Your task to perform on an android device: show emergency info Image 0: 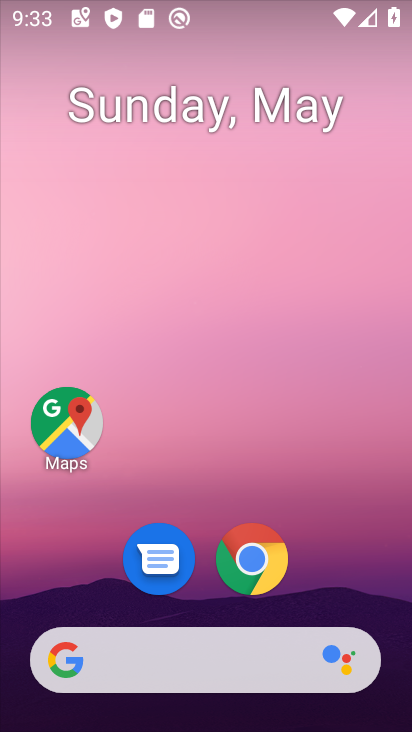
Step 0: press home button
Your task to perform on an android device: show emergency info Image 1: 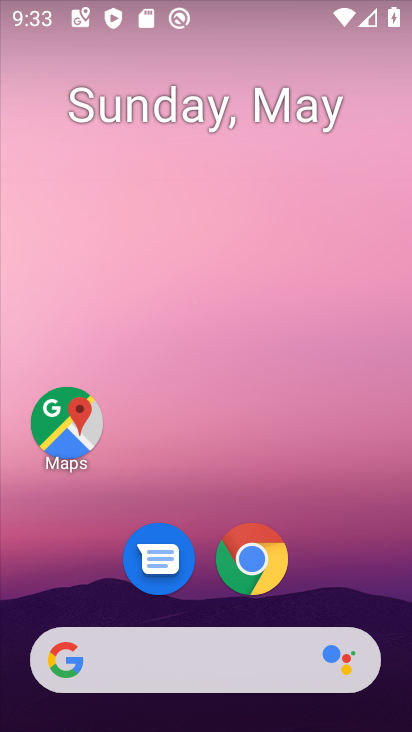
Step 1: drag from (347, 609) to (338, 85)
Your task to perform on an android device: show emergency info Image 2: 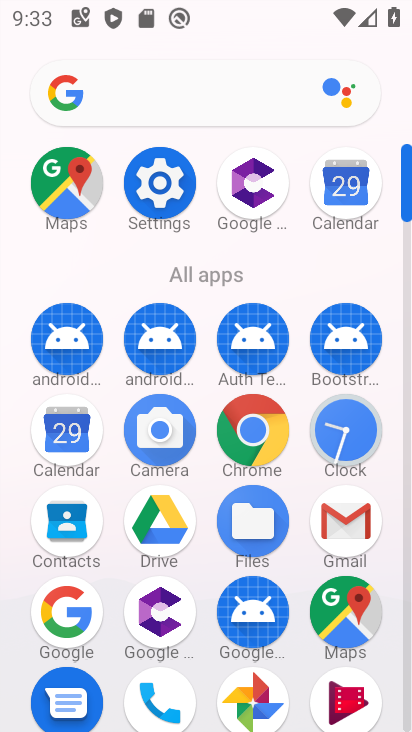
Step 2: click (156, 186)
Your task to perform on an android device: show emergency info Image 3: 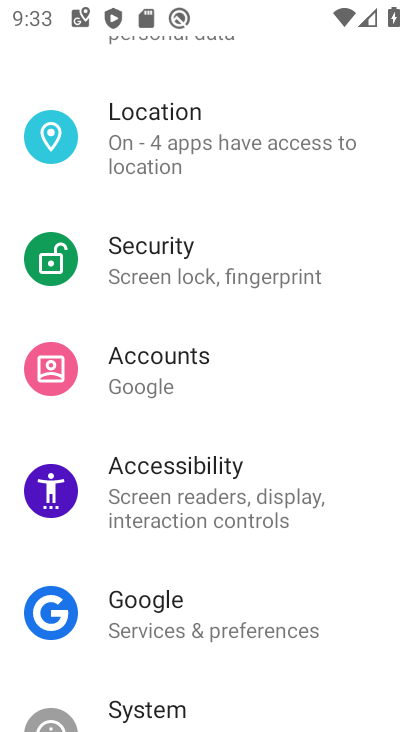
Step 3: drag from (351, 680) to (342, 96)
Your task to perform on an android device: show emergency info Image 4: 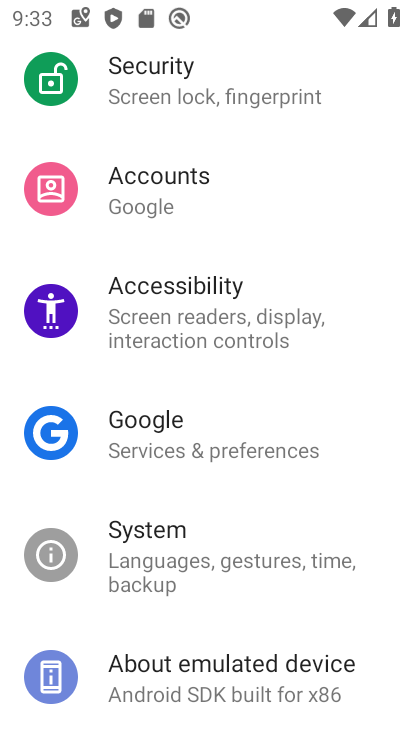
Step 4: click (200, 671)
Your task to perform on an android device: show emergency info Image 5: 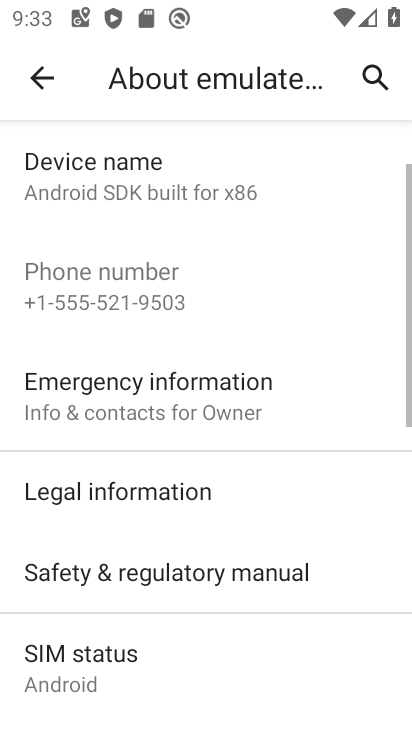
Step 5: click (130, 383)
Your task to perform on an android device: show emergency info Image 6: 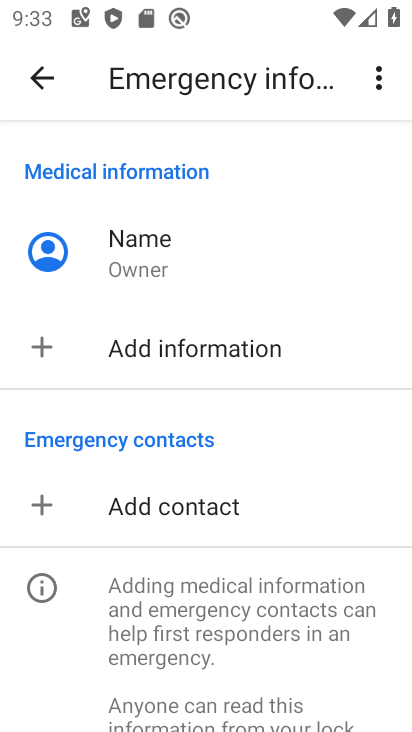
Step 6: task complete